Your task to perform on an android device: open app "LinkedIn" (install if not already installed) Image 0: 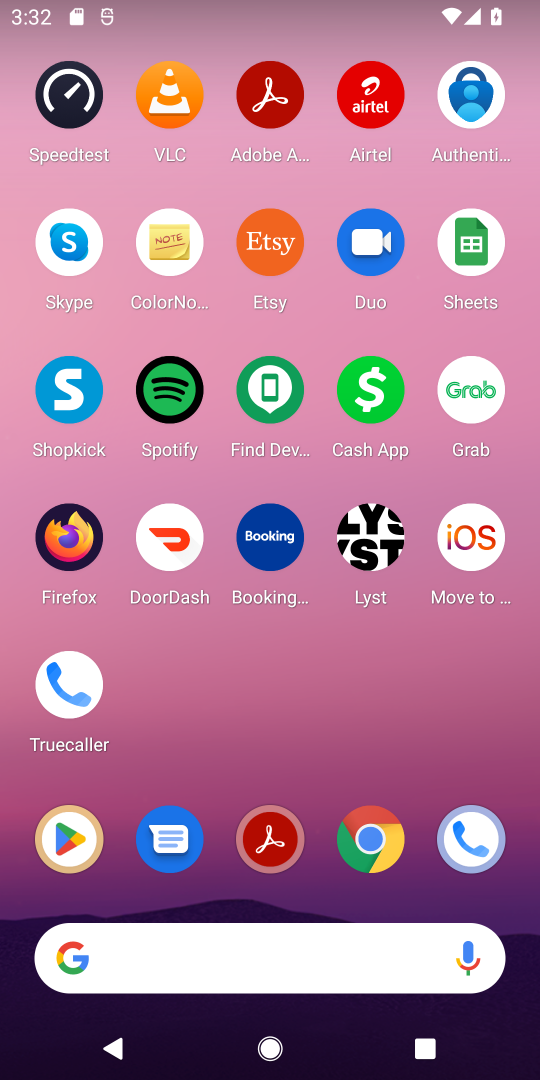
Step 0: click (70, 859)
Your task to perform on an android device: open app "LinkedIn" (install if not already installed) Image 1: 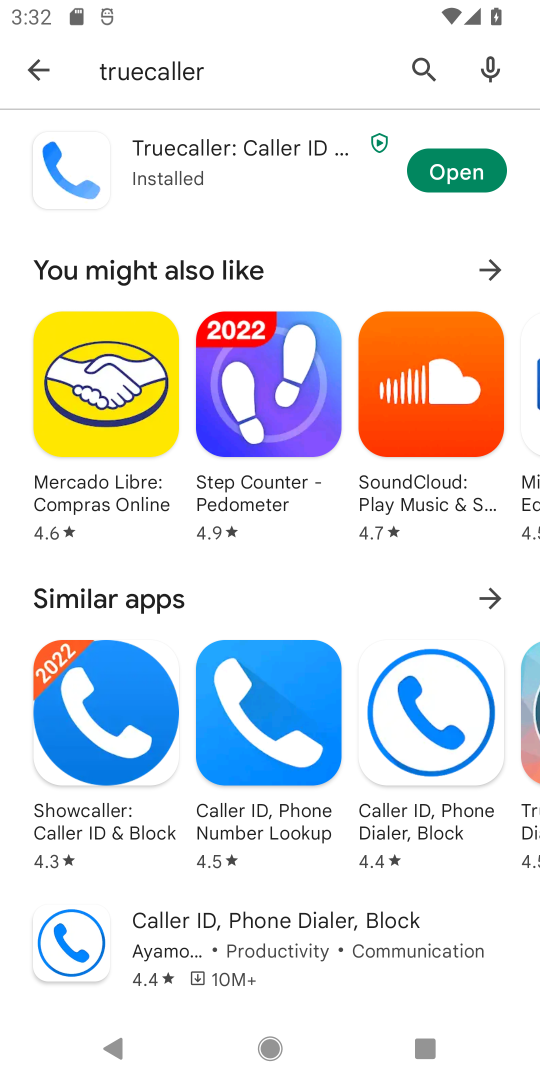
Step 1: click (441, 56)
Your task to perform on an android device: open app "LinkedIn" (install if not already installed) Image 2: 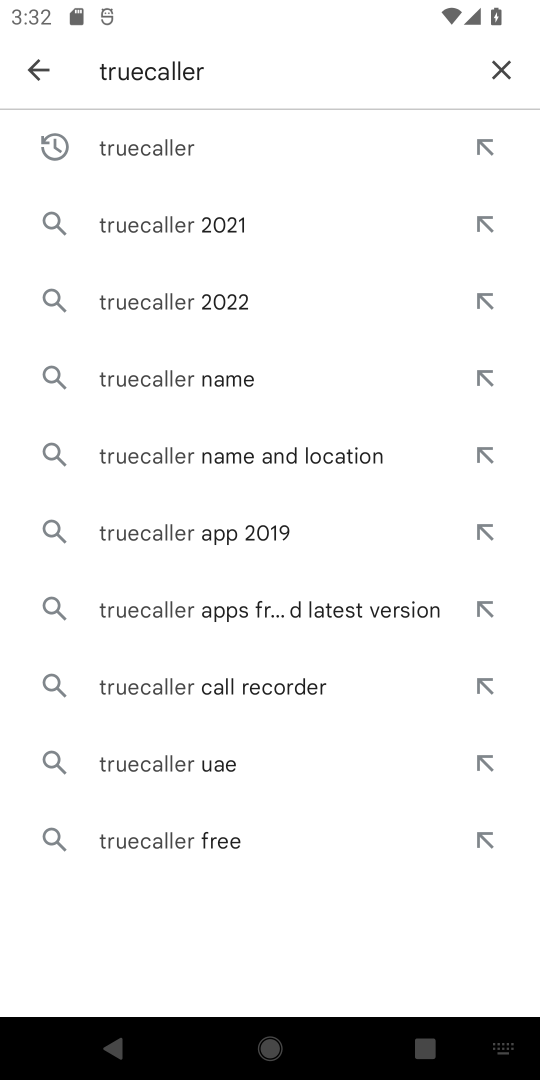
Step 2: click (487, 73)
Your task to perform on an android device: open app "LinkedIn" (install if not already installed) Image 3: 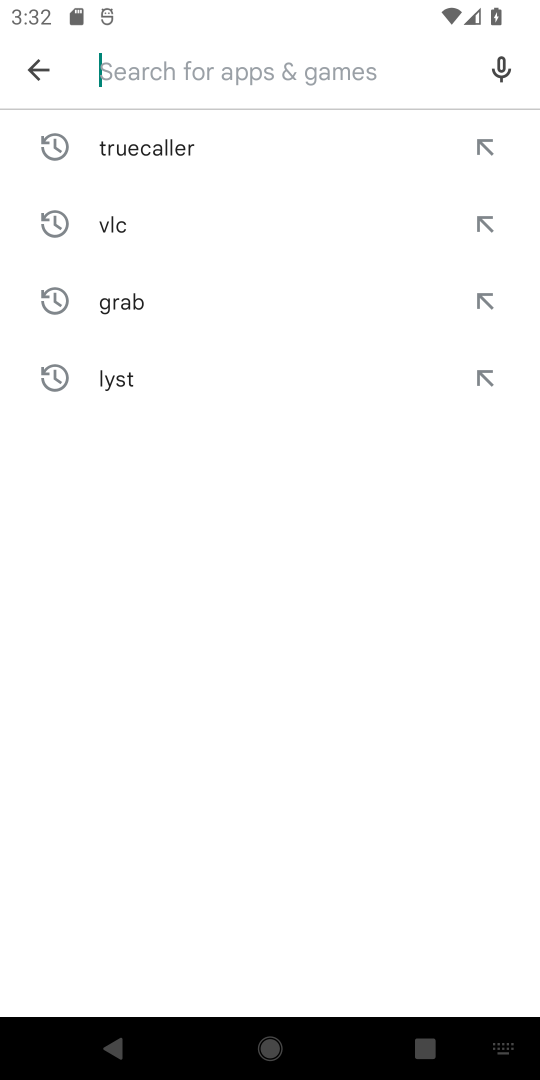
Step 3: type "linkedin"
Your task to perform on an android device: open app "LinkedIn" (install if not already installed) Image 4: 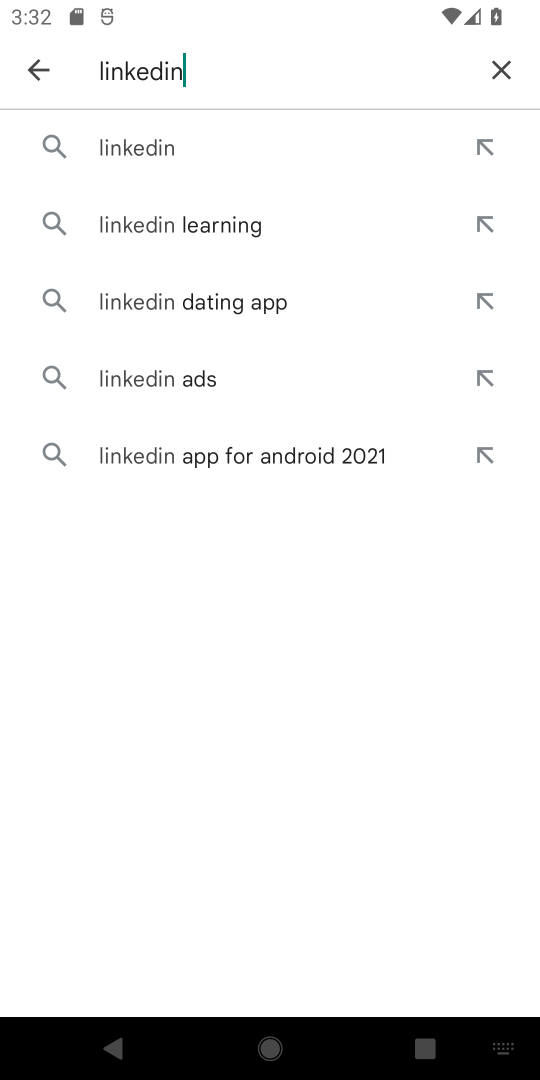
Step 4: click (236, 141)
Your task to perform on an android device: open app "LinkedIn" (install if not already installed) Image 5: 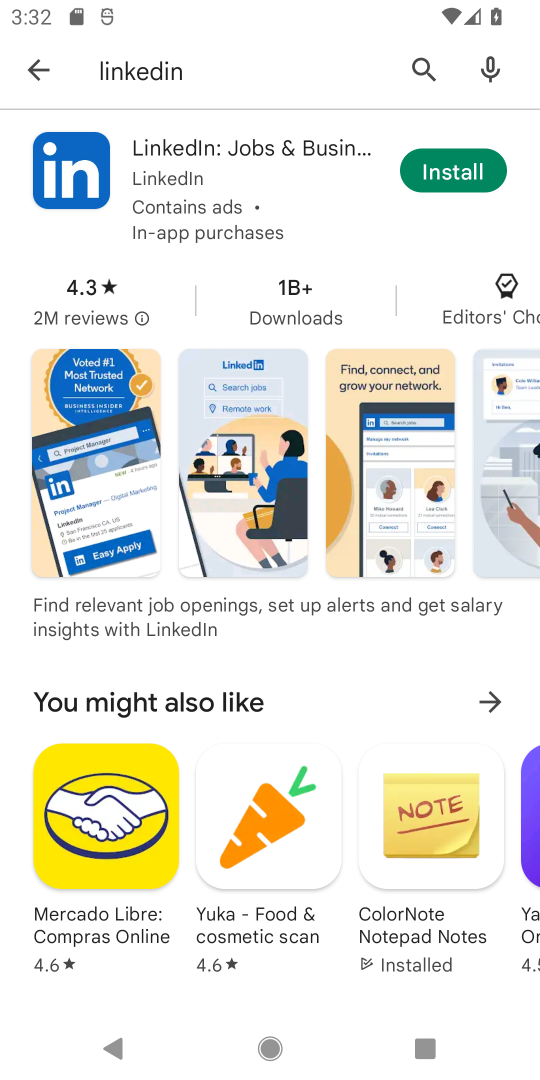
Step 5: click (477, 172)
Your task to perform on an android device: open app "LinkedIn" (install if not already installed) Image 6: 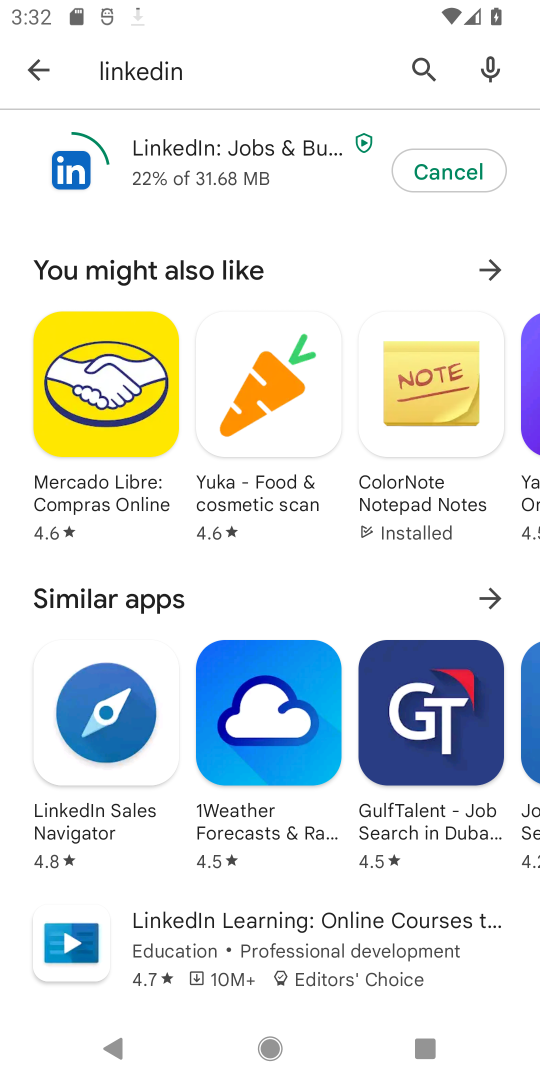
Step 6: task complete